Your task to perform on an android device: Add "usb-c to usb-b" to the cart on newegg, then select checkout. Image 0: 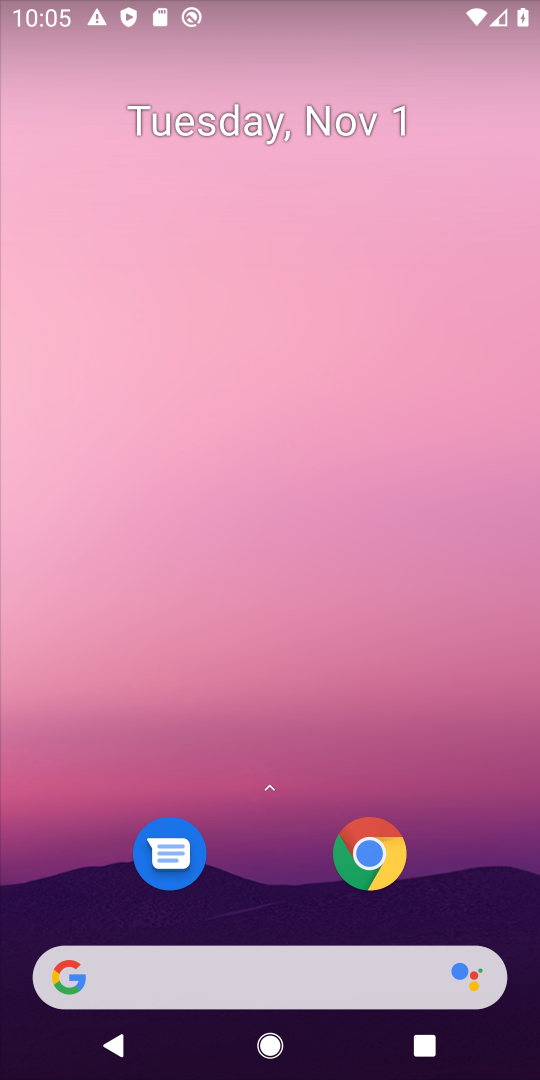
Step 0: click (260, 1006)
Your task to perform on an android device: Add "usb-c to usb-b" to the cart on newegg, then select checkout. Image 1: 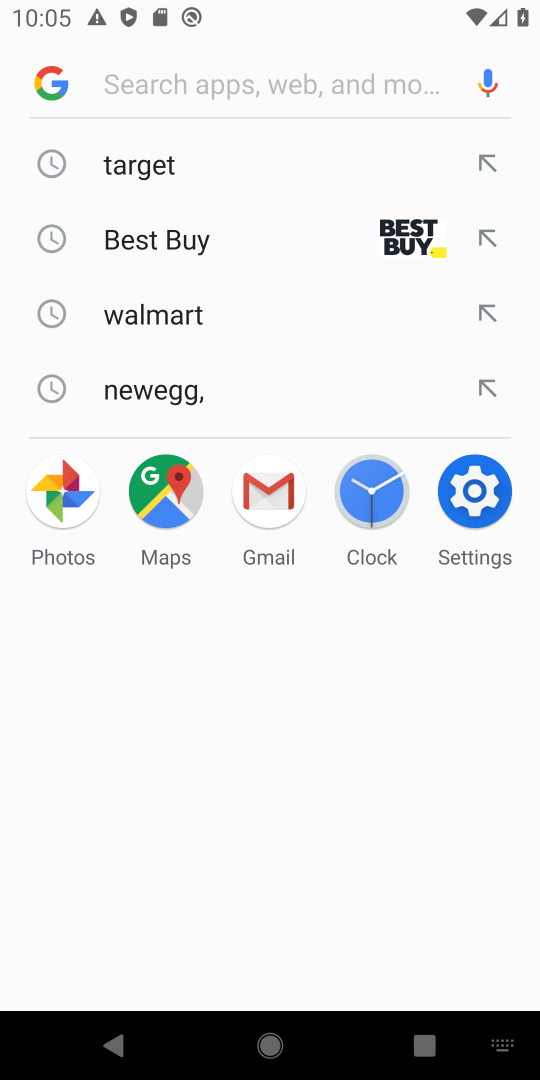
Step 1: click (200, 407)
Your task to perform on an android device: Add "usb-c to usb-b" to the cart on newegg, then select checkout. Image 2: 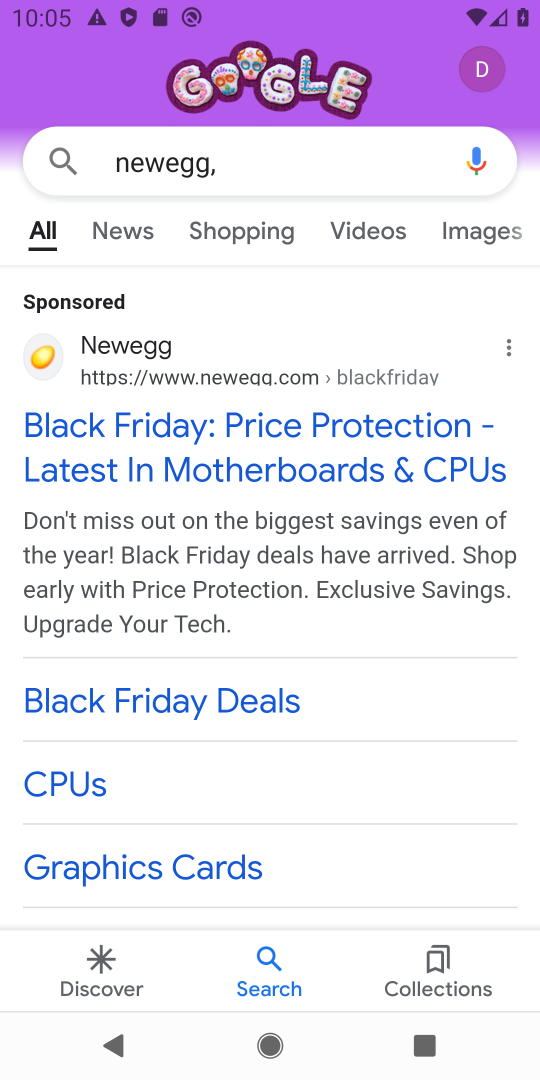
Step 2: click (234, 432)
Your task to perform on an android device: Add "usb-c to usb-b" to the cart on newegg, then select checkout. Image 3: 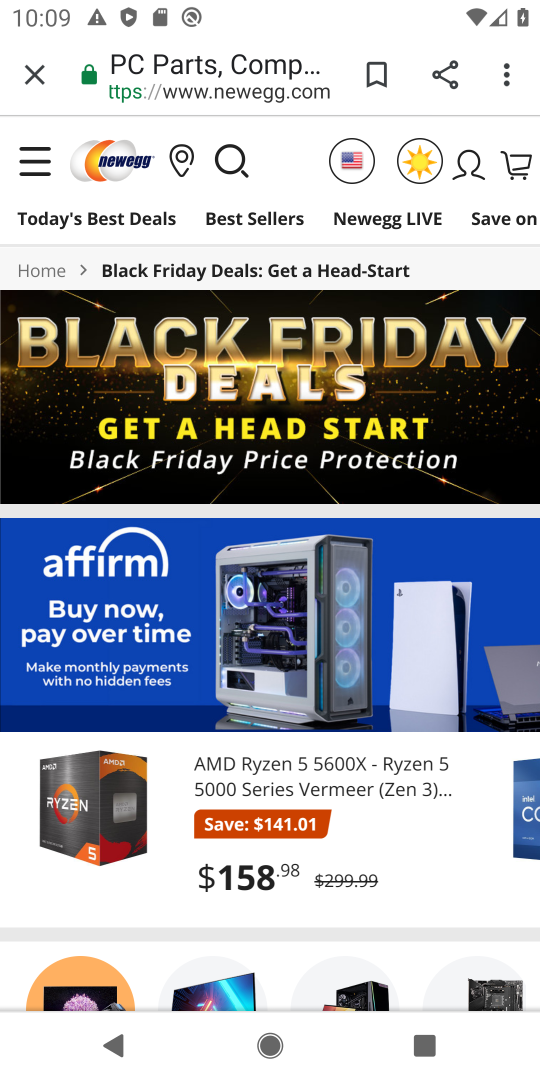
Step 3: task complete